Your task to perform on an android device: add a contact Image 0: 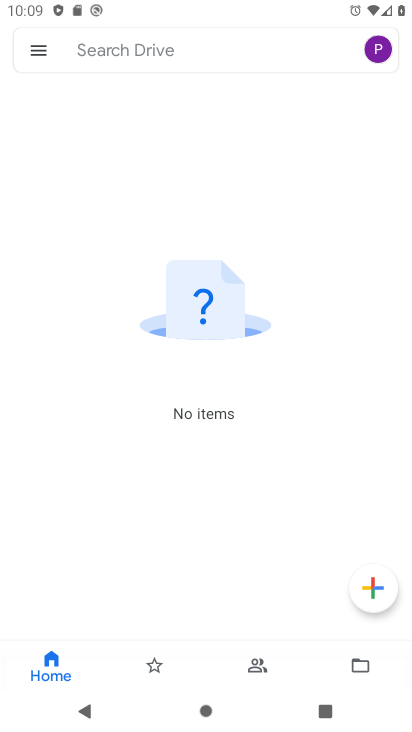
Step 0: press back button
Your task to perform on an android device: add a contact Image 1: 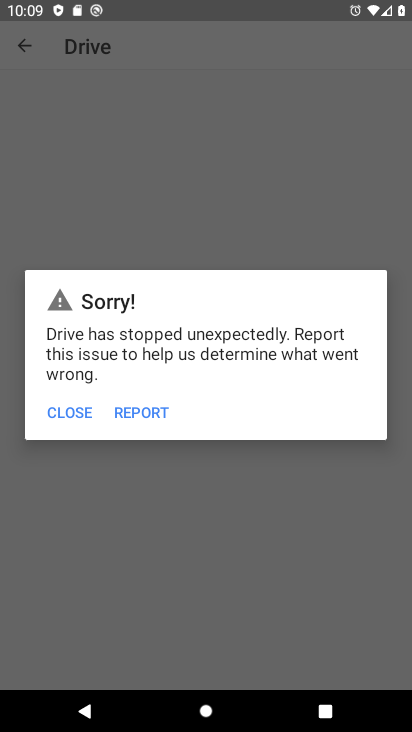
Step 1: press back button
Your task to perform on an android device: add a contact Image 2: 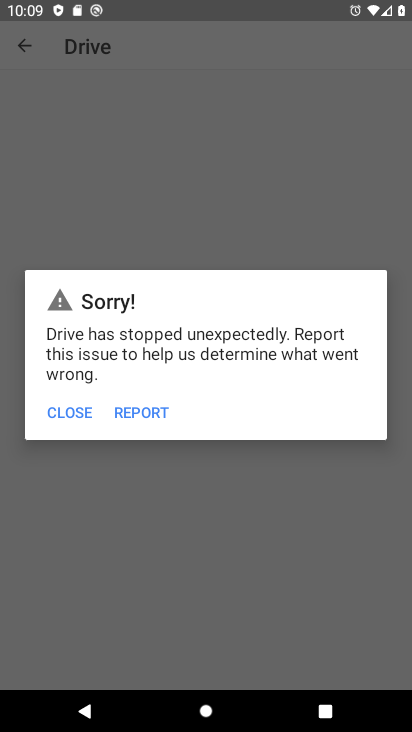
Step 2: press home button
Your task to perform on an android device: add a contact Image 3: 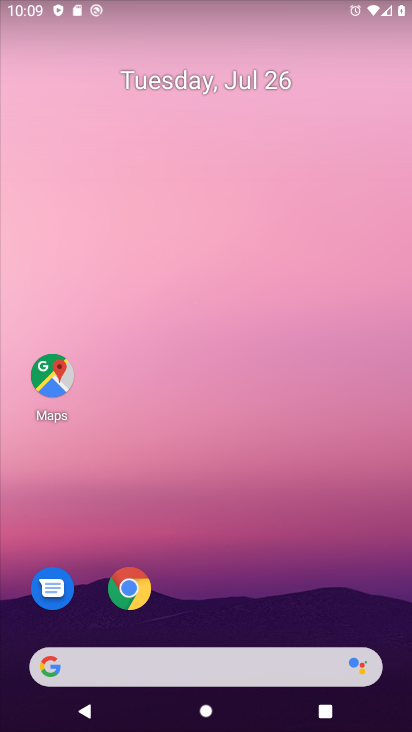
Step 3: drag from (203, 612) to (274, 16)
Your task to perform on an android device: add a contact Image 4: 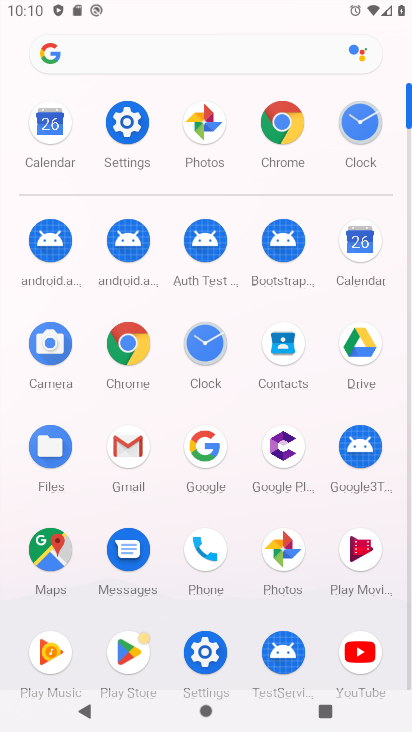
Step 4: click (278, 349)
Your task to perform on an android device: add a contact Image 5: 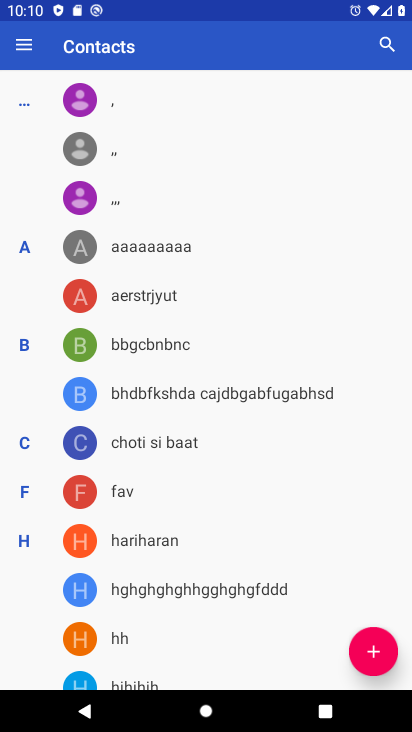
Step 5: click (369, 641)
Your task to perform on an android device: add a contact Image 6: 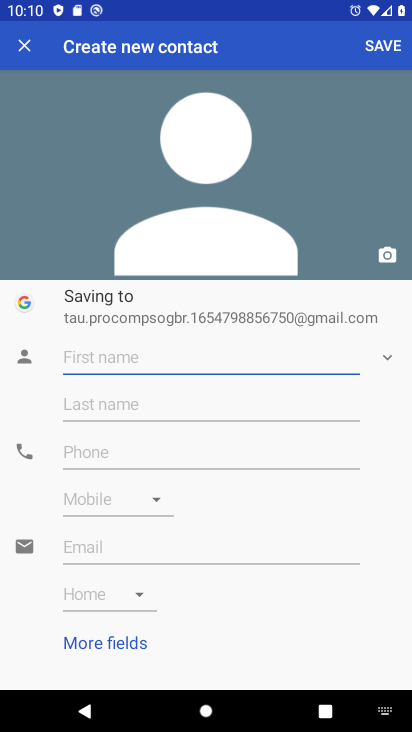
Step 6: click (84, 357)
Your task to perform on an android device: add a contact Image 7: 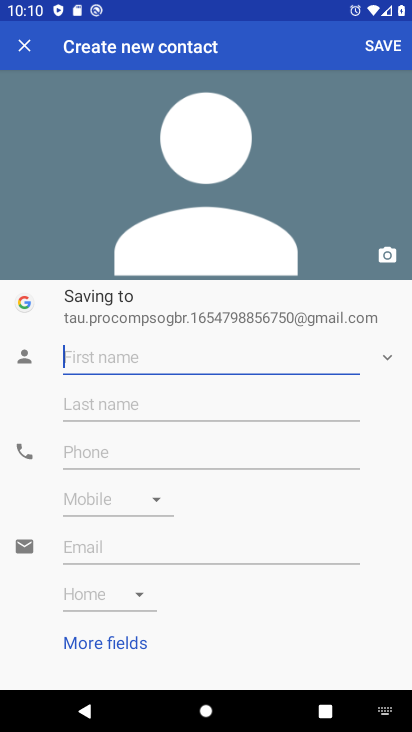
Step 7: type "gggvg"
Your task to perform on an android device: add a contact Image 8: 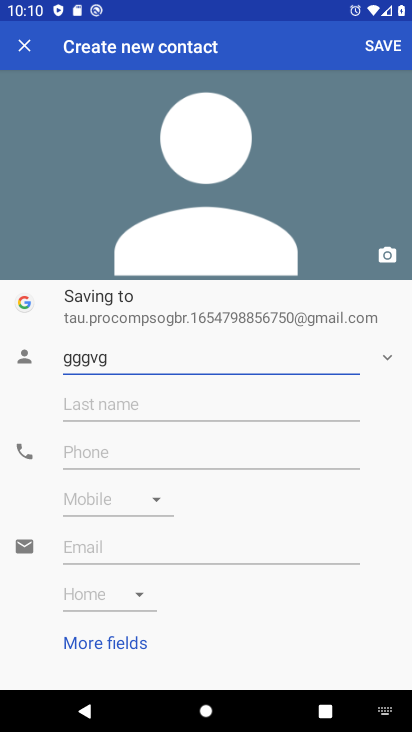
Step 8: click (120, 447)
Your task to perform on an android device: add a contact Image 9: 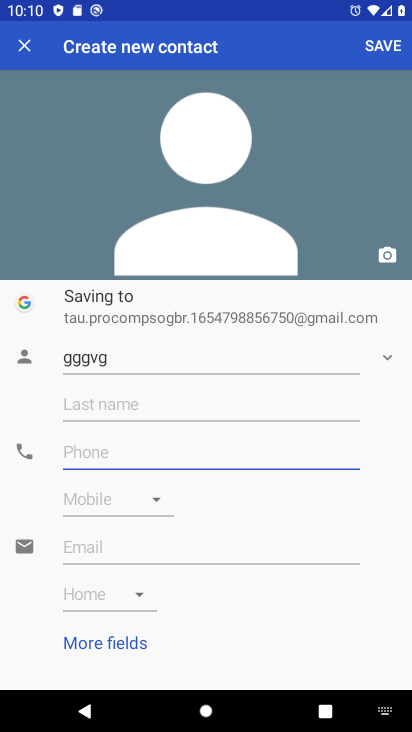
Step 9: type "87878"
Your task to perform on an android device: add a contact Image 10: 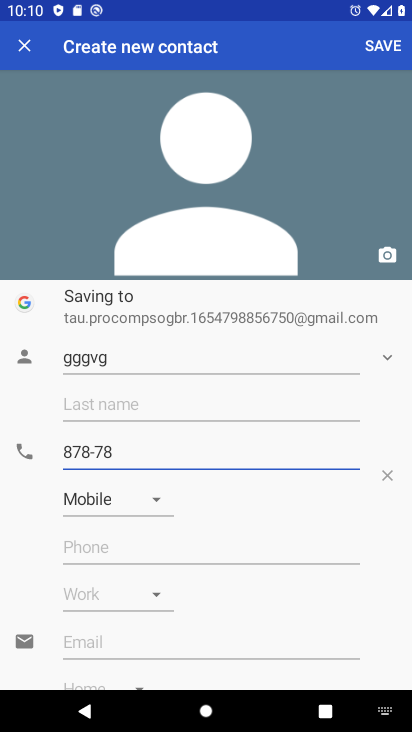
Step 10: click (387, 35)
Your task to perform on an android device: add a contact Image 11: 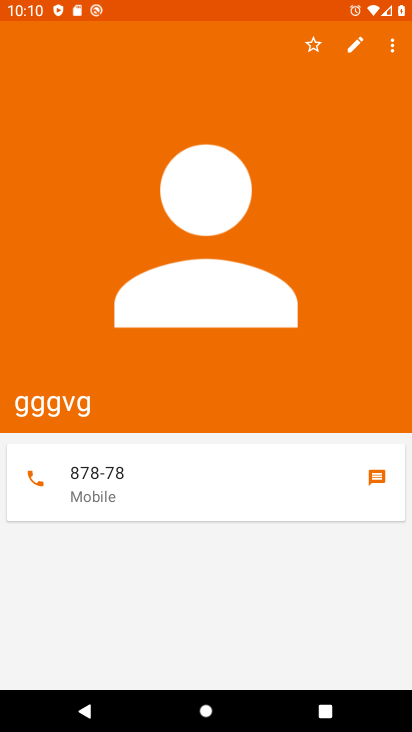
Step 11: task complete